Your task to perform on an android device: Open Google Maps Image 0: 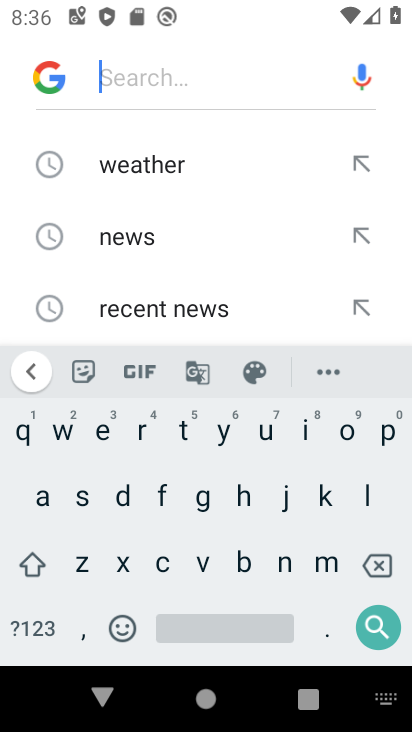
Step 0: press home button
Your task to perform on an android device: Open Google Maps Image 1: 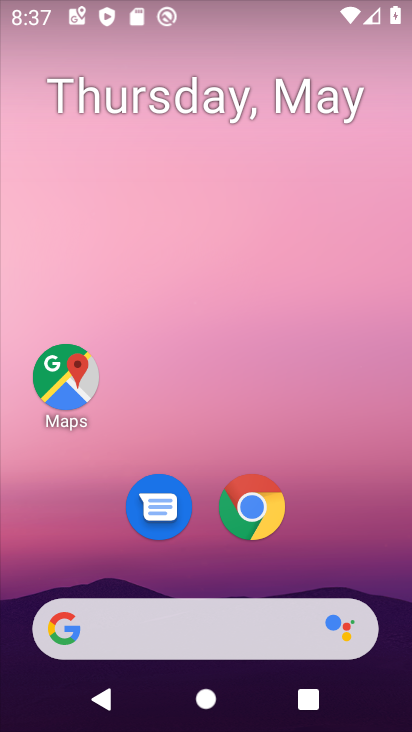
Step 1: drag from (272, 679) to (264, 353)
Your task to perform on an android device: Open Google Maps Image 2: 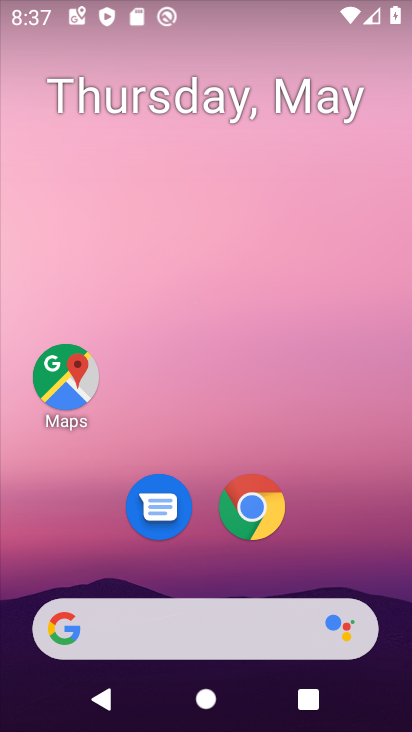
Step 2: drag from (167, 665) to (213, 181)
Your task to perform on an android device: Open Google Maps Image 3: 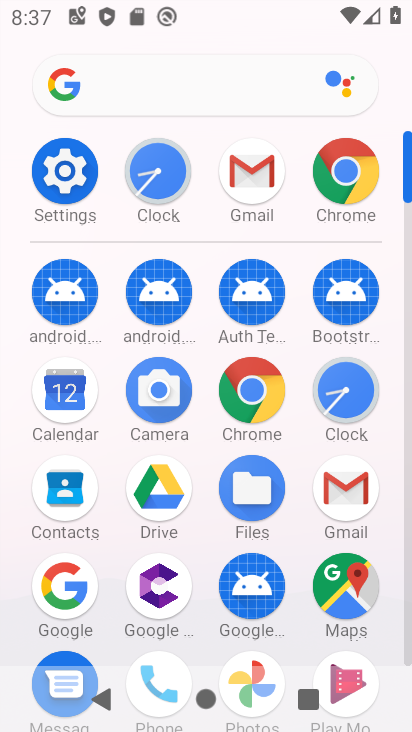
Step 3: click (321, 568)
Your task to perform on an android device: Open Google Maps Image 4: 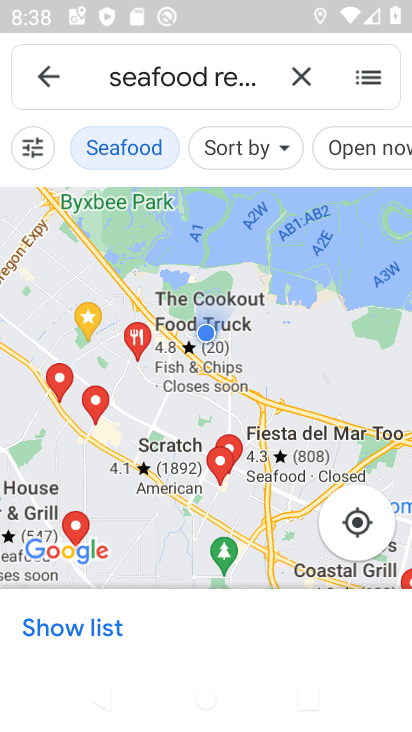
Step 4: click (202, 460)
Your task to perform on an android device: Open Google Maps Image 5: 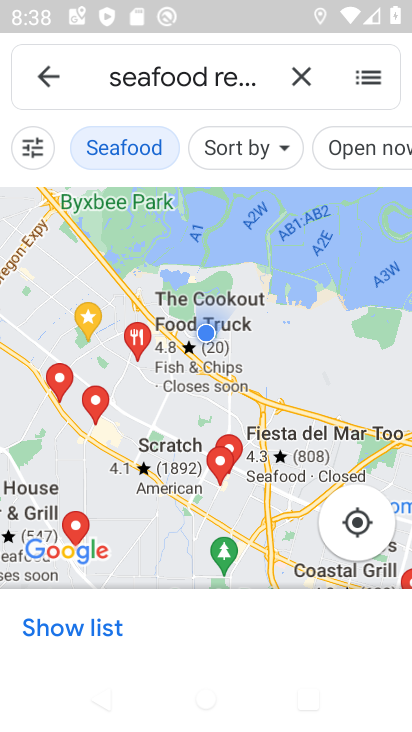
Step 5: click (45, 77)
Your task to perform on an android device: Open Google Maps Image 6: 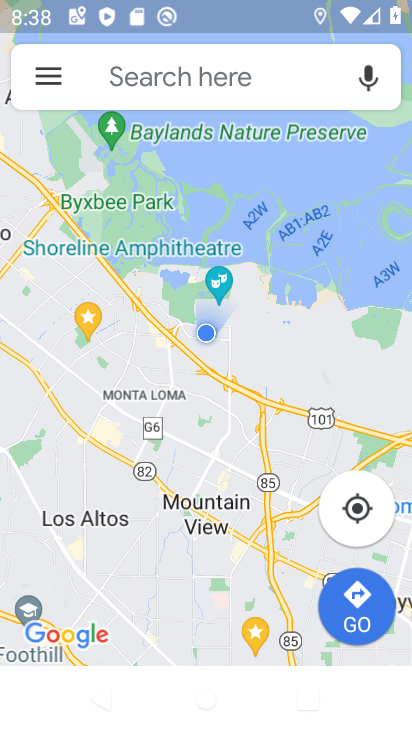
Step 6: task complete